Your task to perform on an android device: Clear all items from cart on target. Add "apple airpods" to the cart on target Image 0: 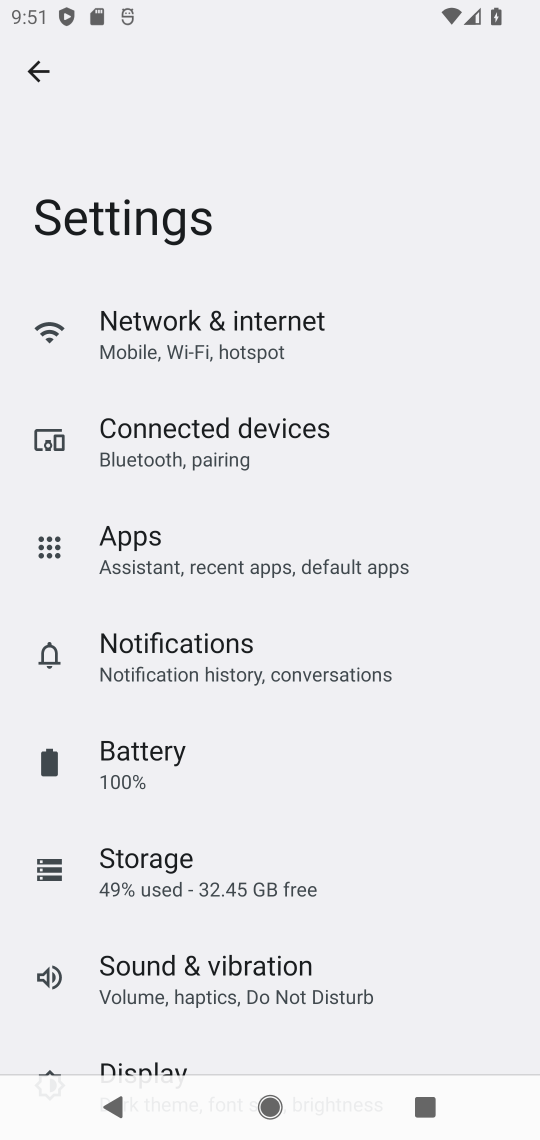
Step 0: press home button
Your task to perform on an android device: Clear all items from cart on target. Add "apple airpods" to the cart on target Image 1: 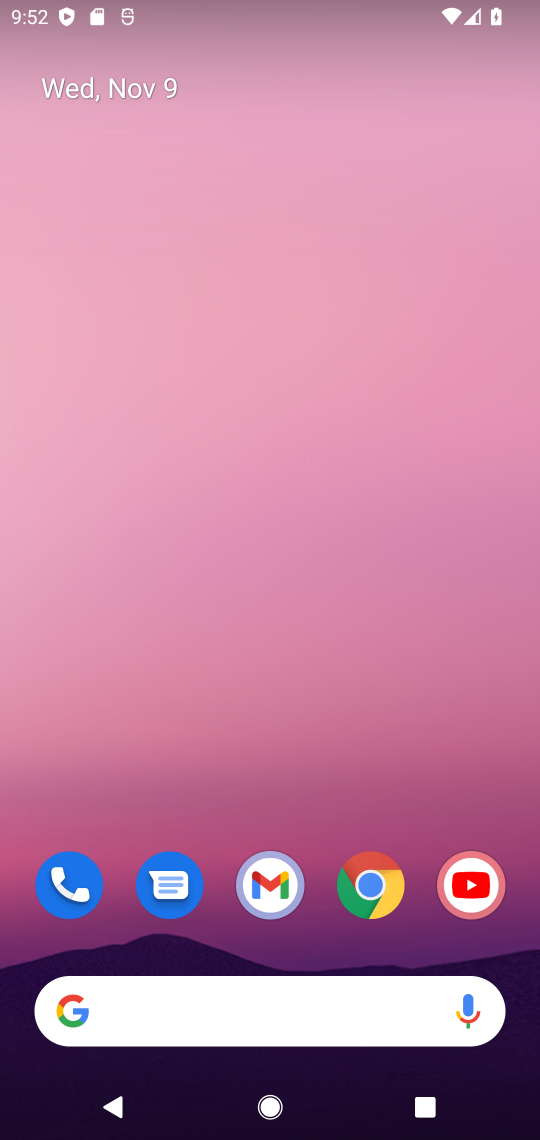
Step 1: click (360, 885)
Your task to perform on an android device: Clear all items from cart on target. Add "apple airpods" to the cart on target Image 2: 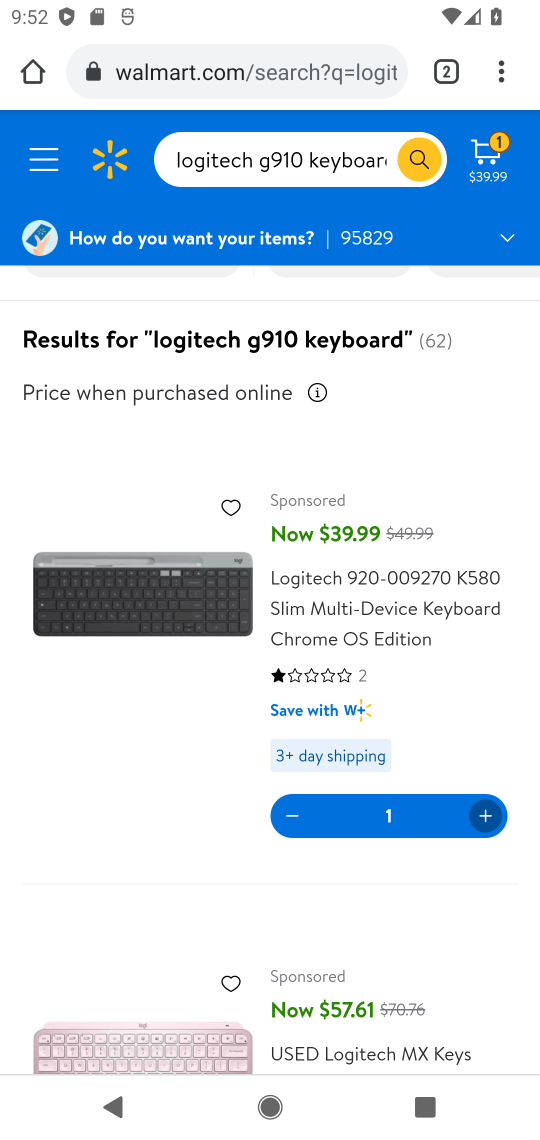
Step 2: click (447, 71)
Your task to perform on an android device: Clear all items from cart on target. Add "apple airpods" to the cart on target Image 3: 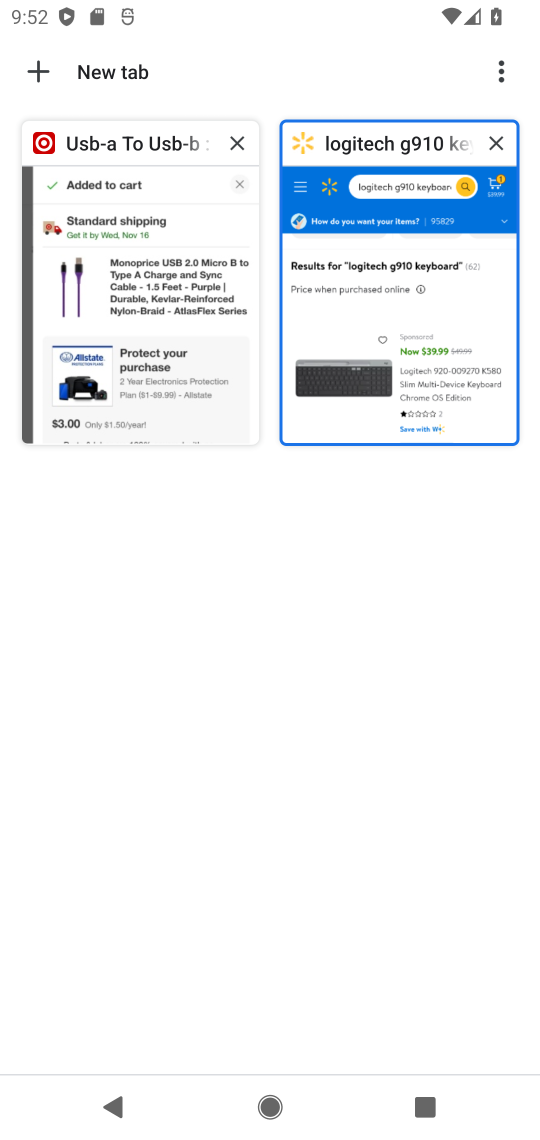
Step 3: click (105, 229)
Your task to perform on an android device: Clear all items from cart on target. Add "apple airpods" to the cart on target Image 4: 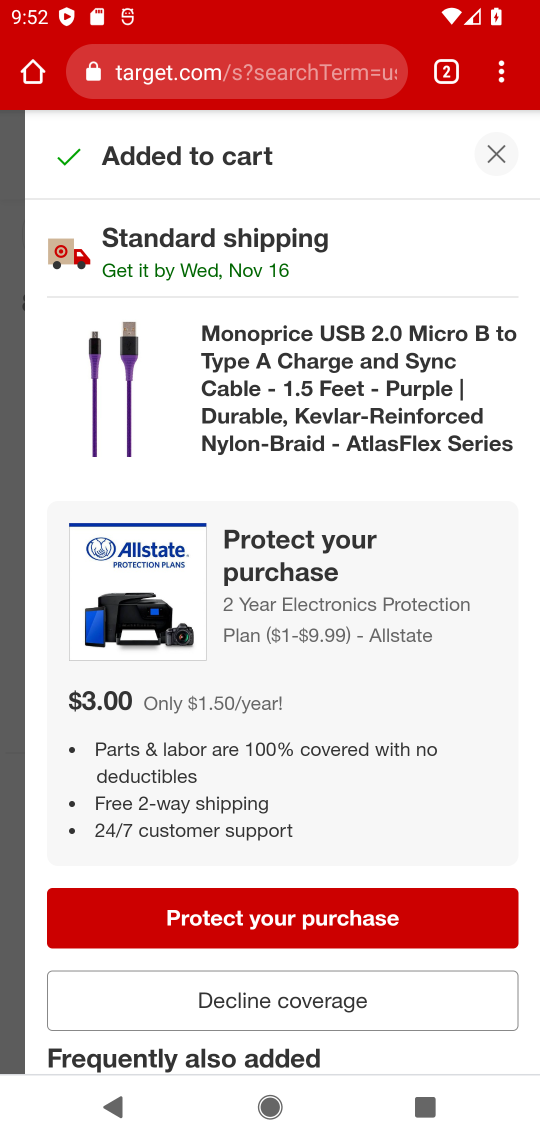
Step 4: click (500, 153)
Your task to perform on an android device: Clear all items from cart on target. Add "apple airpods" to the cart on target Image 5: 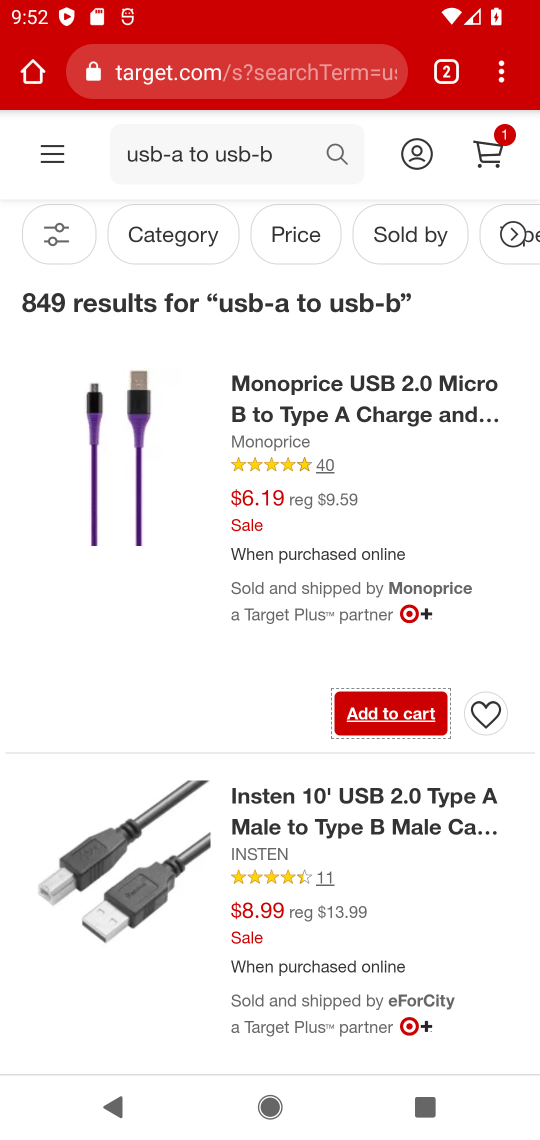
Step 5: click (201, 148)
Your task to perform on an android device: Clear all items from cart on target. Add "apple airpods" to the cart on target Image 6: 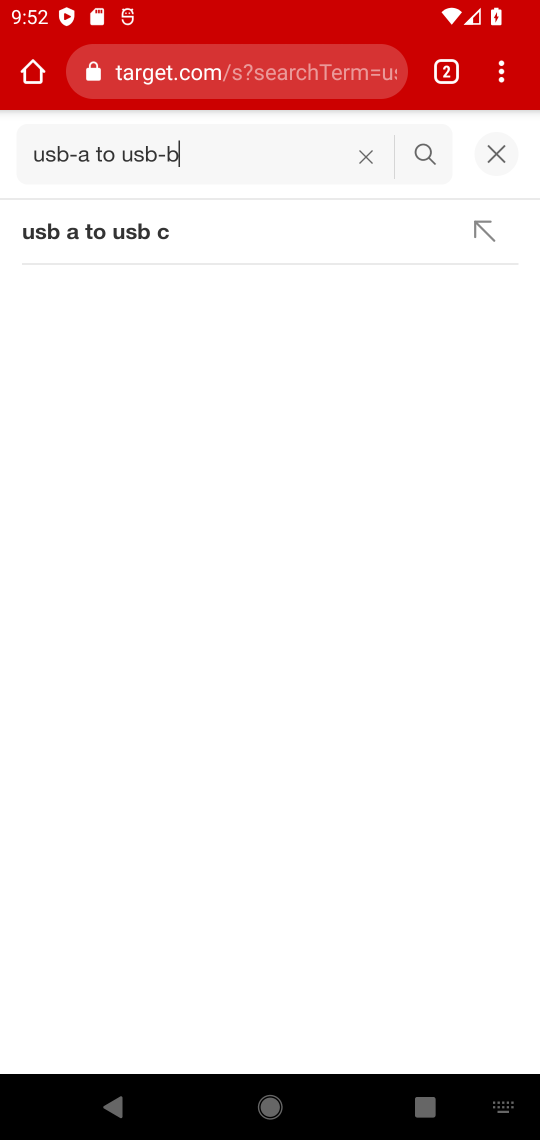
Step 6: click (365, 156)
Your task to perform on an android device: Clear all items from cart on target. Add "apple airpods" to the cart on target Image 7: 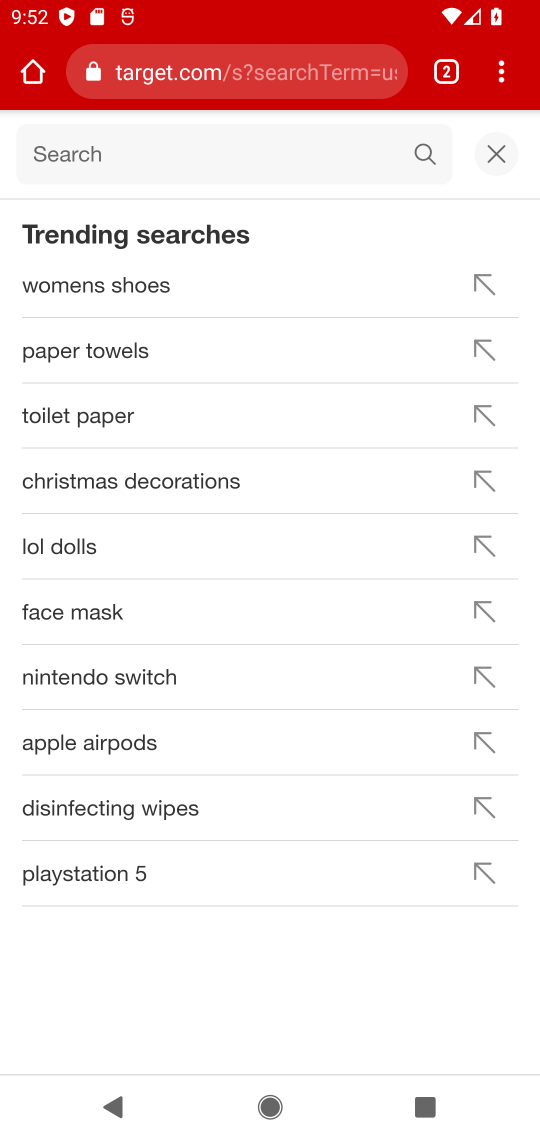
Step 7: type "apple airpods"
Your task to perform on an android device: Clear all items from cart on target. Add "apple airpods" to the cart on target Image 8: 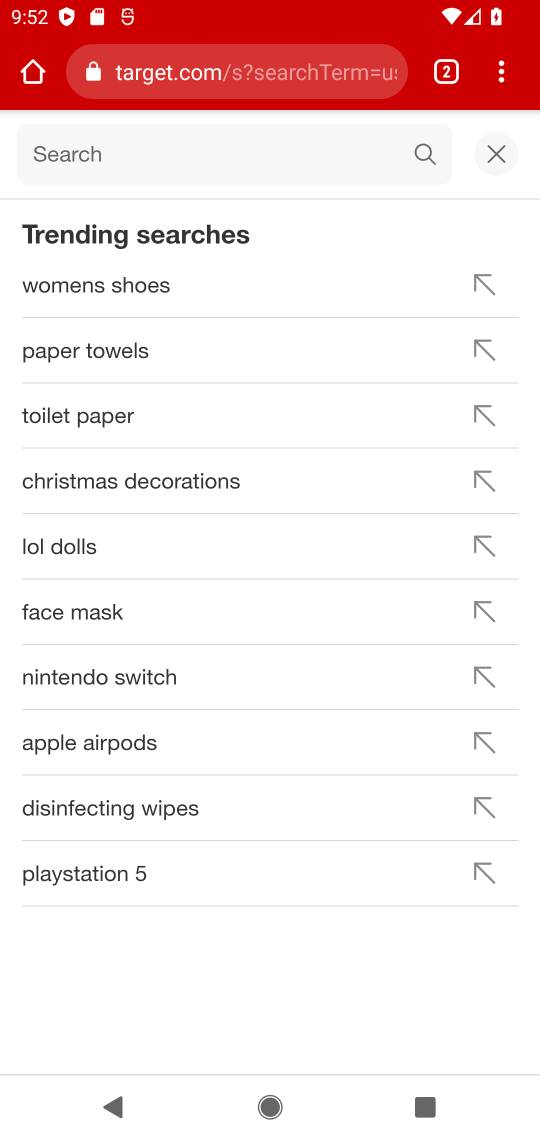
Step 8: click (95, 155)
Your task to perform on an android device: Clear all items from cart on target. Add "apple airpods" to the cart on target Image 9: 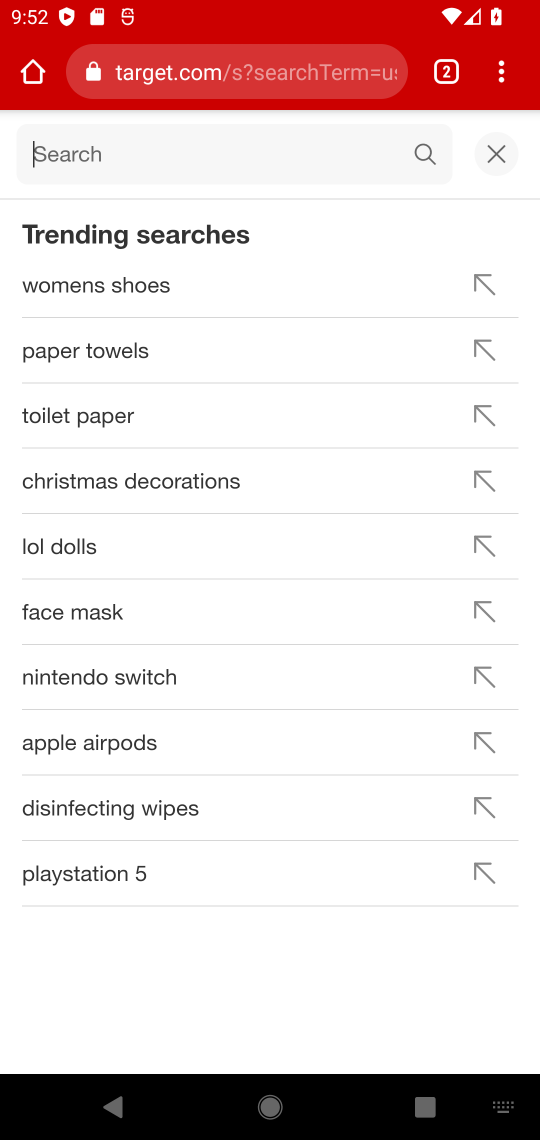
Step 9: type "apple airpods"
Your task to perform on an android device: Clear all items from cart on target. Add "apple airpods" to the cart on target Image 10: 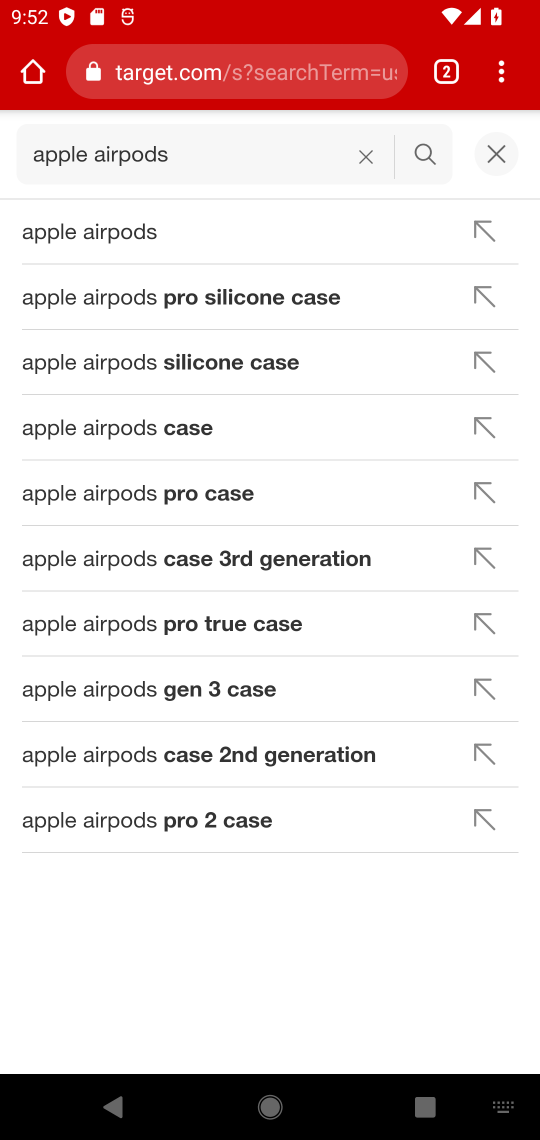
Step 10: click (88, 222)
Your task to perform on an android device: Clear all items from cart on target. Add "apple airpods" to the cart on target Image 11: 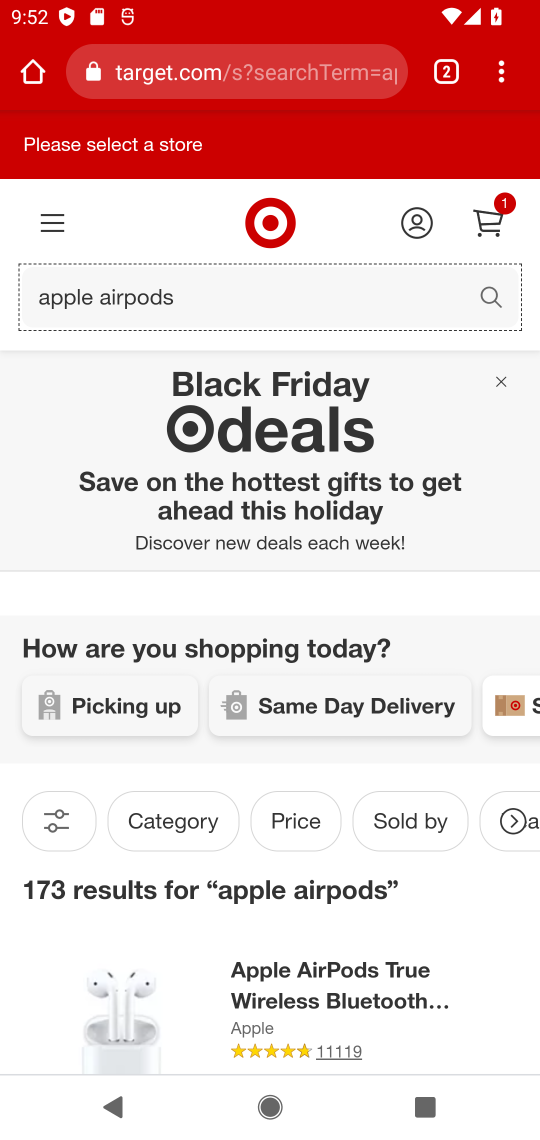
Step 11: drag from (310, 940) to (425, 550)
Your task to perform on an android device: Clear all items from cart on target. Add "apple airpods" to the cart on target Image 12: 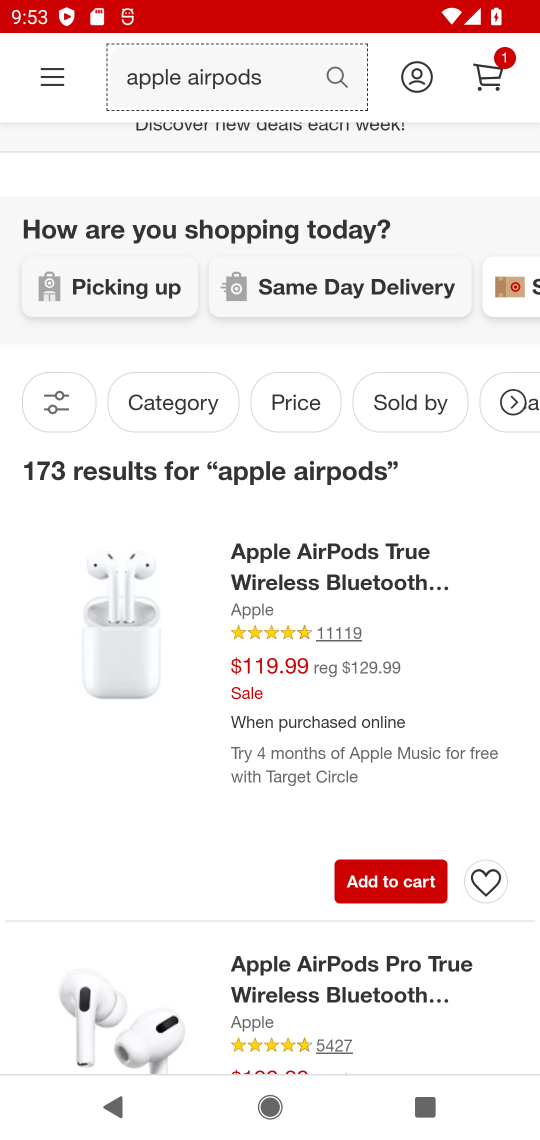
Step 12: click (410, 874)
Your task to perform on an android device: Clear all items from cart on target. Add "apple airpods" to the cart on target Image 13: 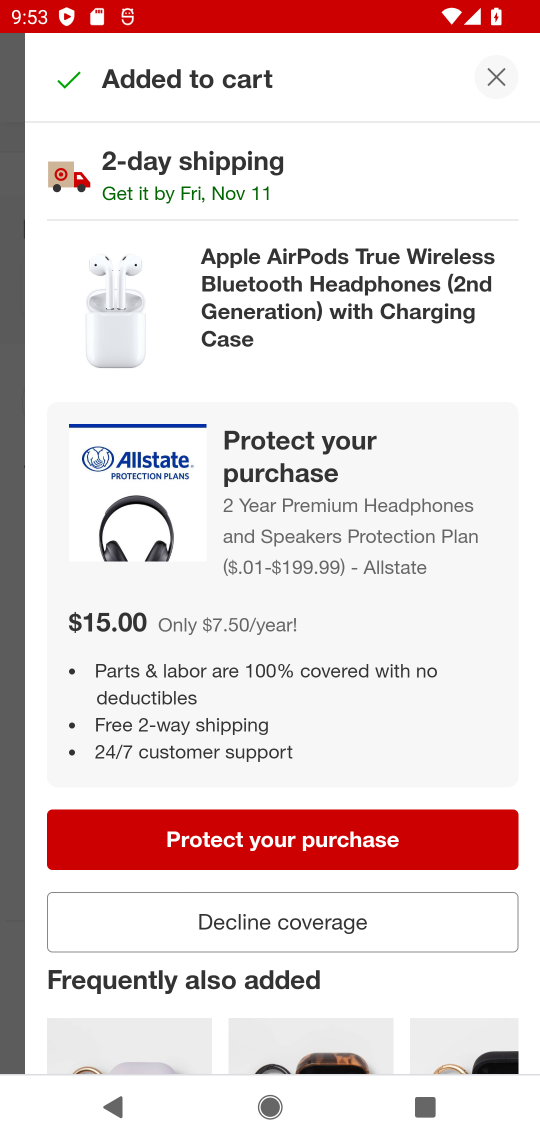
Step 13: task complete